Your task to perform on an android device: turn on javascript in the chrome app Image 0: 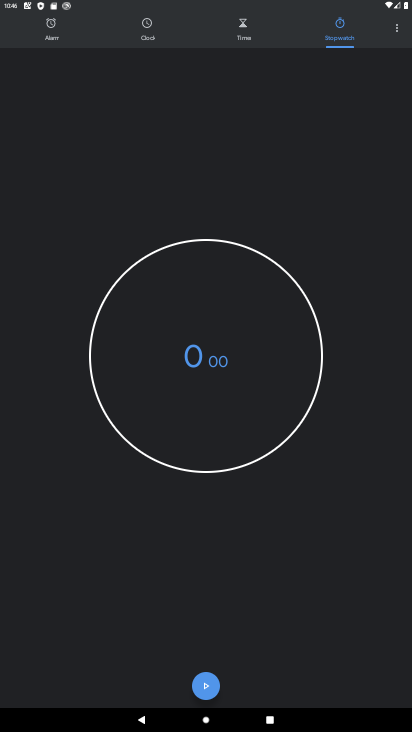
Step 0: press home button
Your task to perform on an android device: turn on javascript in the chrome app Image 1: 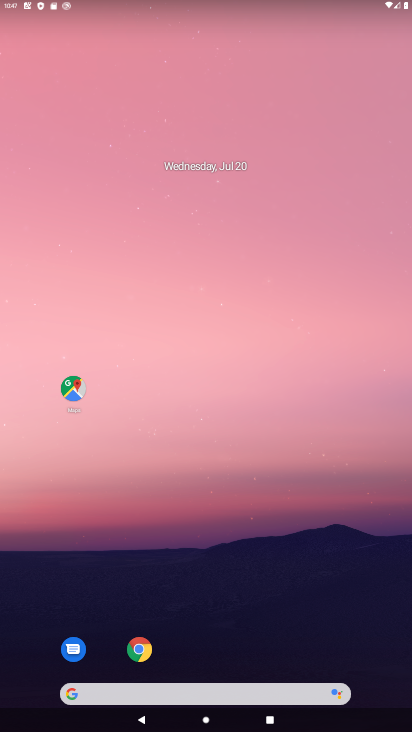
Step 1: click (151, 659)
Your task to perform on an android device: turn on javascript in the chrome app Image 2: 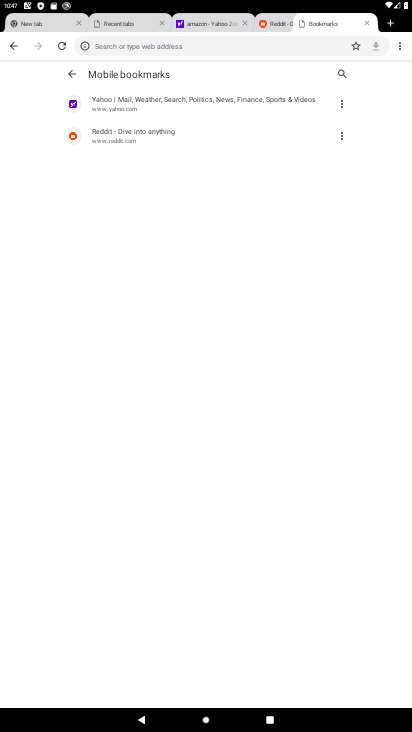
Step 2: click (401, 49)
Your task to perform on an android device: turn on javascript in the chrome app Image 3: 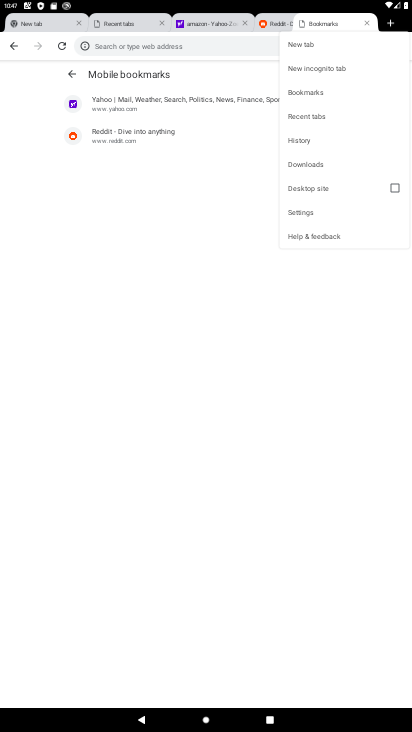
Step 3: click (339, 214)
Your task to perform on an android device: turn on javascript in the chrome app Image 4: 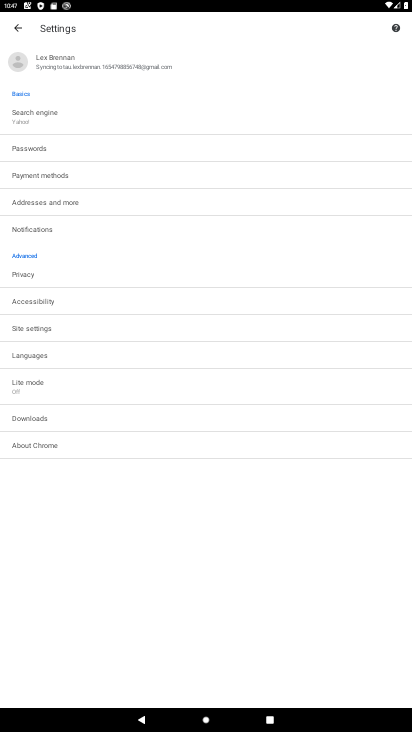
Step 4: click (179, 336)
Your task to perform on an android device: turn on javascript in the chrome app Image 5: 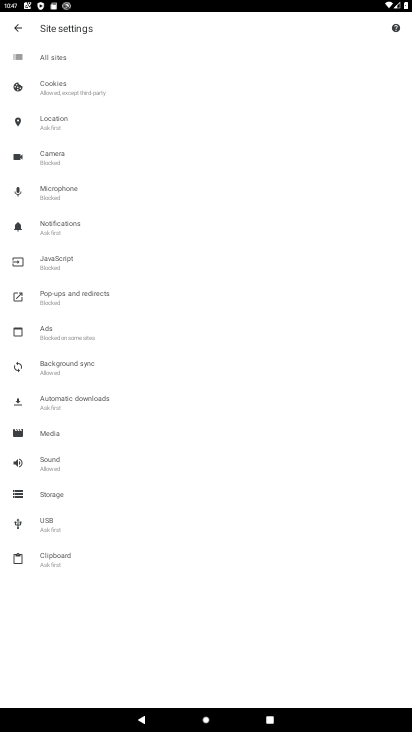
Step 5: click (145, 262)
Your task to perform on an android device: turn on javascript in the chrome app Image 6: 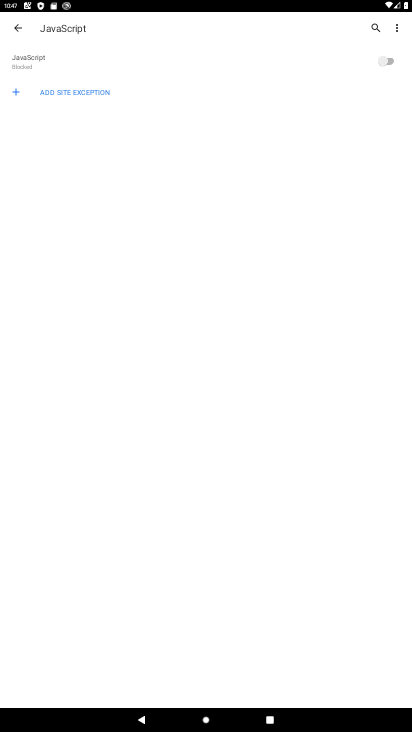
Step 6: task complete